Your task to perform on an android device: Go to internet settings Image 0: 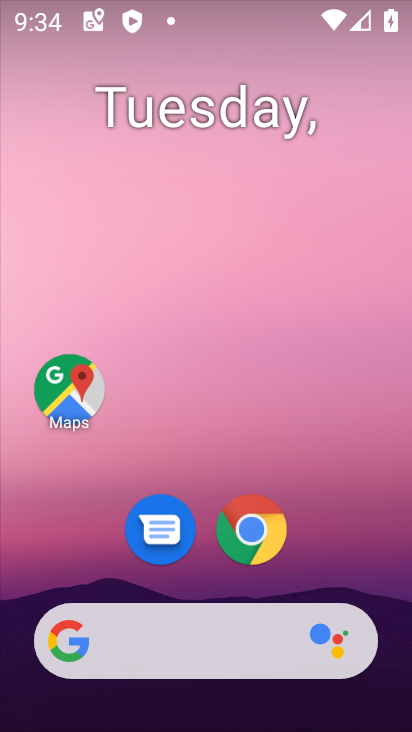
Step 0: drag from (216, 661) to (262, 136)
Your task to perform on an android device: Go to internet settings Image 1: 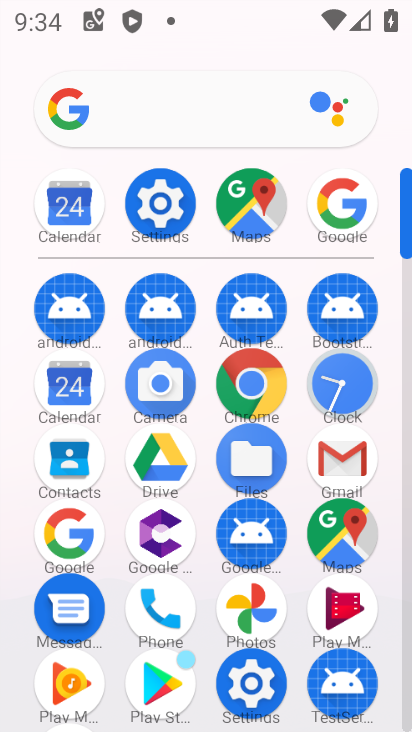
Step 1: click (150, 231)
Your task to perform on an android device: Go to internet settings Image 2: 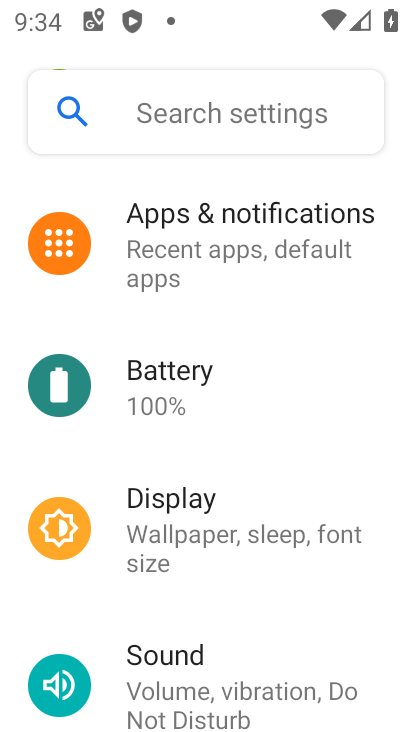
Step 2: drag from (188, 249) to (216, 678)
Your task to perform on an android device: Go to internet settings Image 3: 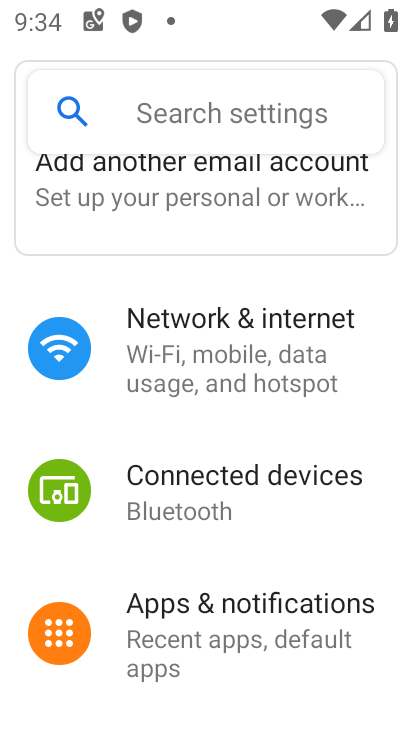
Step 3: click (275, 366)
Your task to perform on an android device: Go to internet settings Image 4: 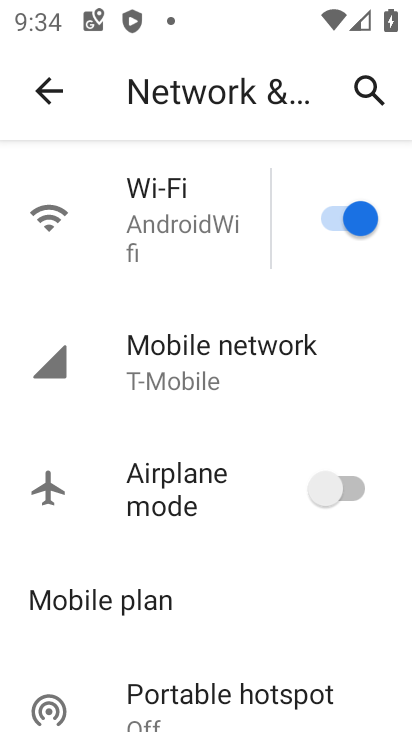
Step 4: click (245, 368)
Your task to perform on an android device: Go to internet settings Image 5: 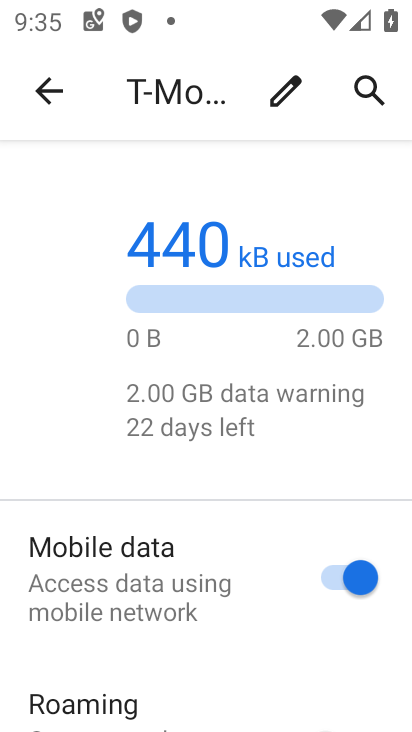
Step 5: task complete